Your task to perform on an android device: set an alarm Image 0: 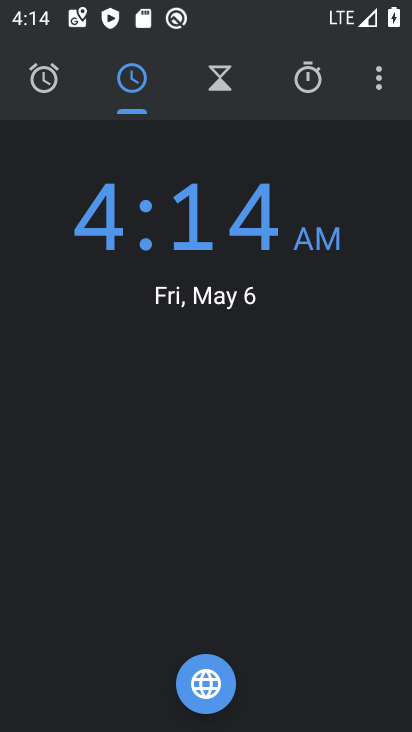
Step 0: press home button
Your task to perform on an android device: set an alarm Image 1: 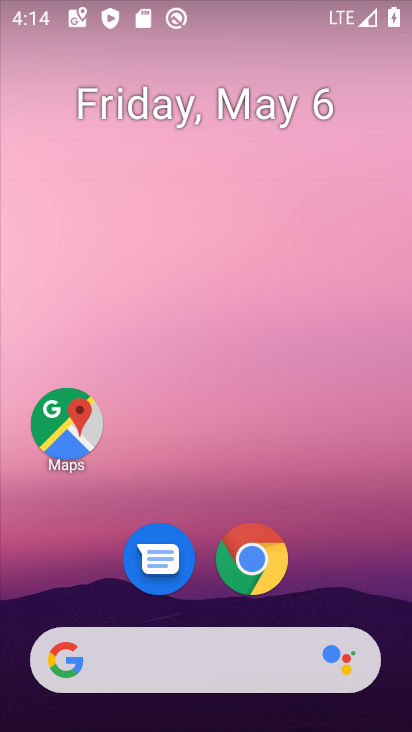
Step 1: drag from (180, 597) to (220, 279)
Your task to perform on an android device: set an alarm Image 2: 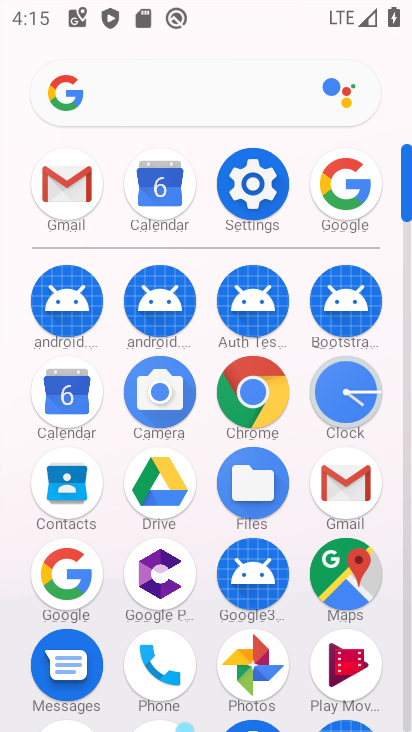
Step 2: click (325, 405)
Your task to perform on an android device: set an alarm Image 3: 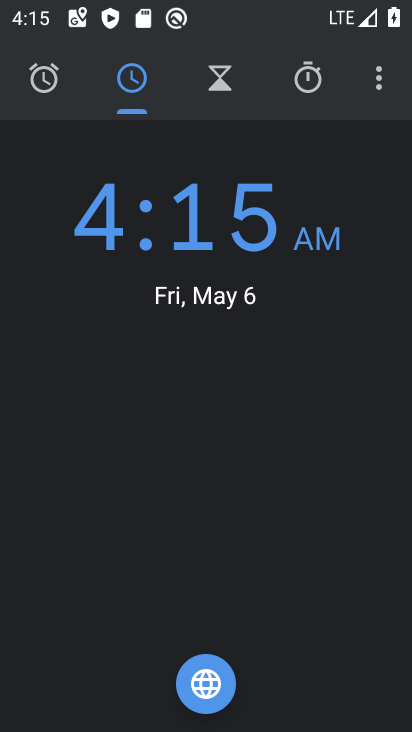
Step 3: click (59, 83)
Your task to perform on an android device: set an alarm Image 4: 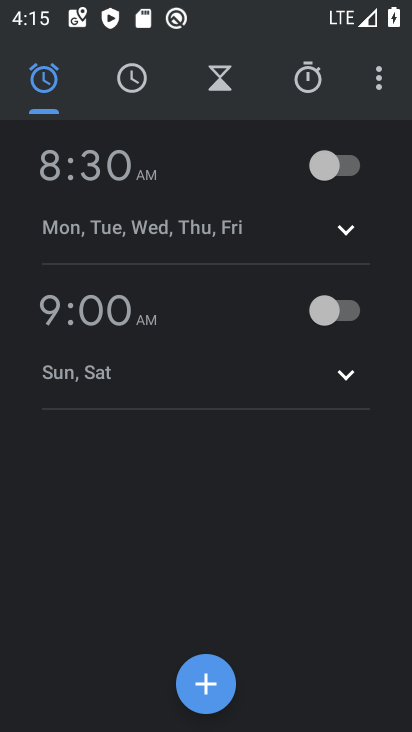
Step 4: click (344, 171)
Your task to perform on an android device: set an alarm Image 5: 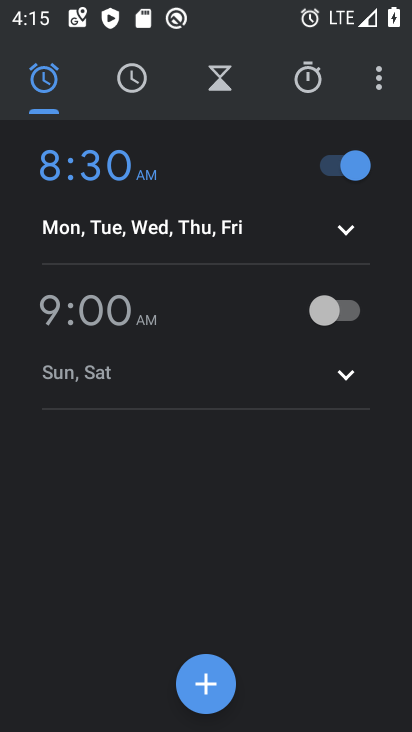
Step 5: task complete